Your task to perform on an android device: change the clock style Image 0: 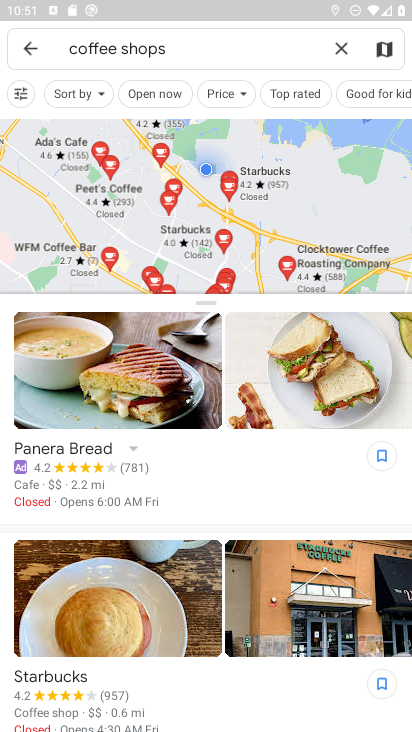
Step 0: press home button
Your task to perform on an android device: change the clock style Image 1: 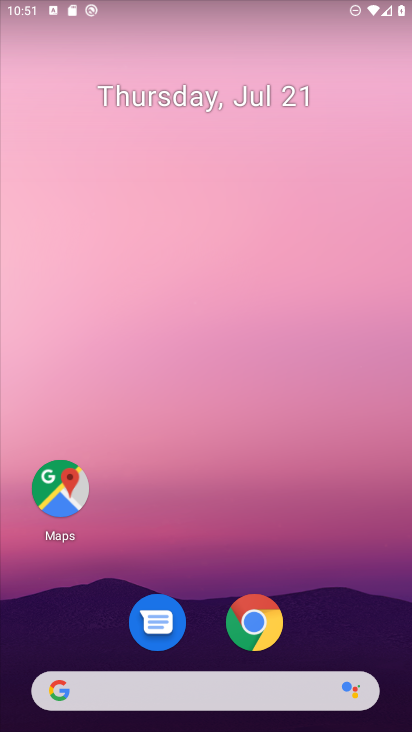
Step 1: drag from (224, 719) to (290, 54)
Your task to perform on an android device: change the clock style Image 2: 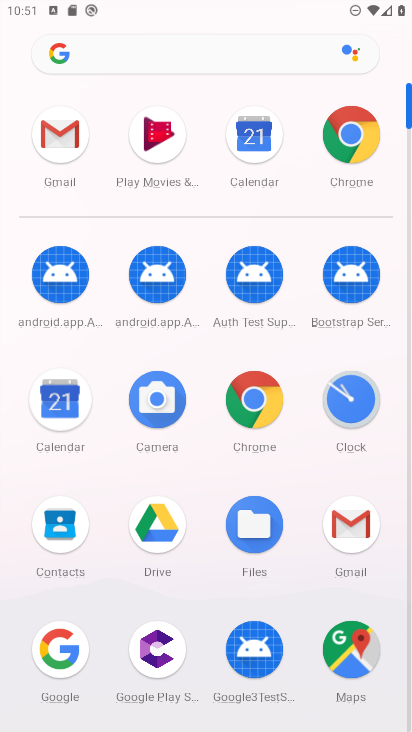
Step 2: click (342, 422)
Your task to perform on an android device: change the clock style Image 3: 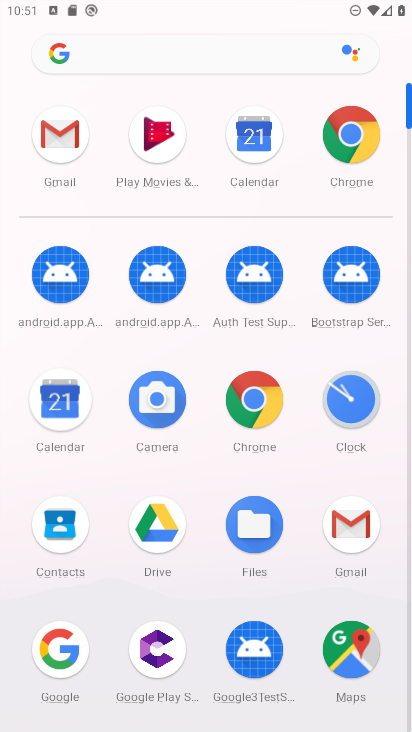
Step 3: click (342, 422)
Your task to perform on an android device: change the clock style Image 4: 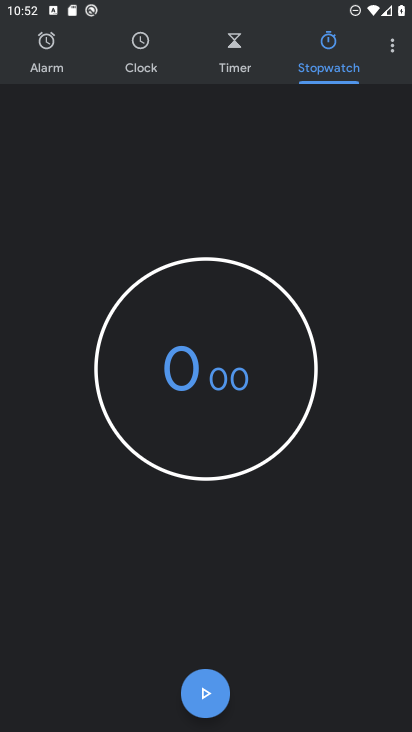
Step 4: click (391, 42)
Your task to perform on an android device: change the clock style Image 5: 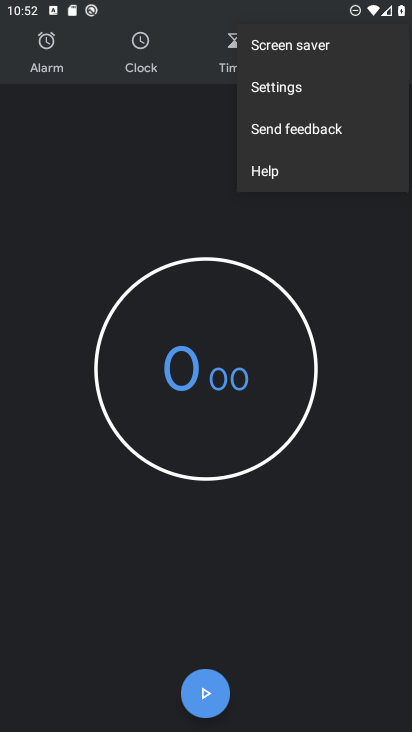
Step 5: click (302, 87)
Your task to perform on an android device: change the clock style Image 6: 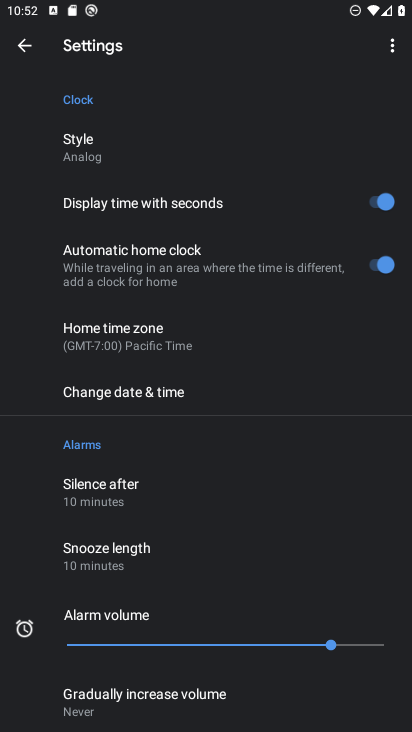
Step 6: click (129, 145)
Your task to perform on an android device: change the clock style Image 7: 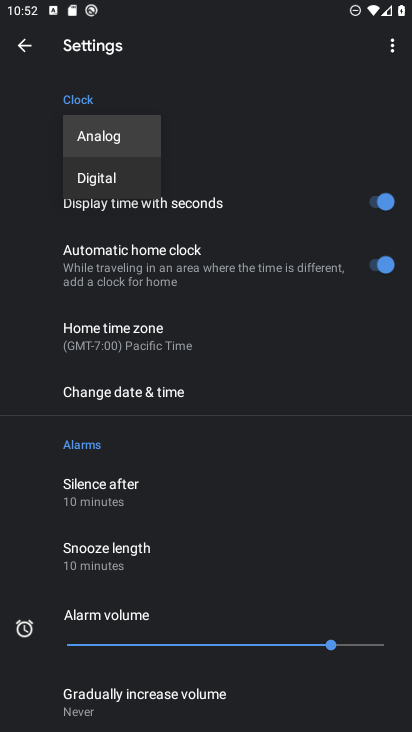
Step 7: click (116, 170)
Your task to perform on an android device: change the clock style Image 8: 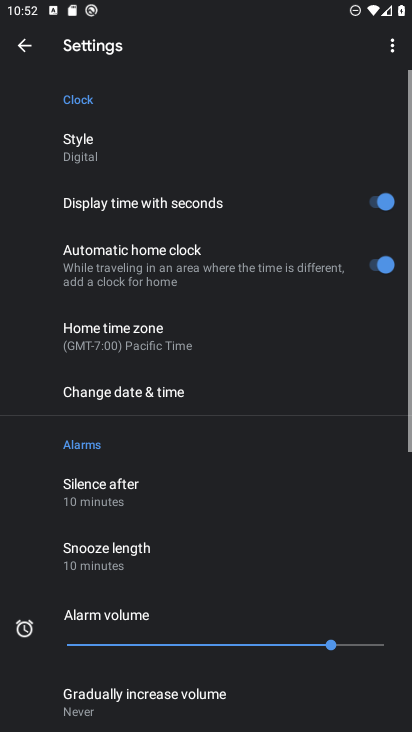
Step 8: task complete